Your task to perform on an android device: Open the calendar and show me this week's events? Image 0: 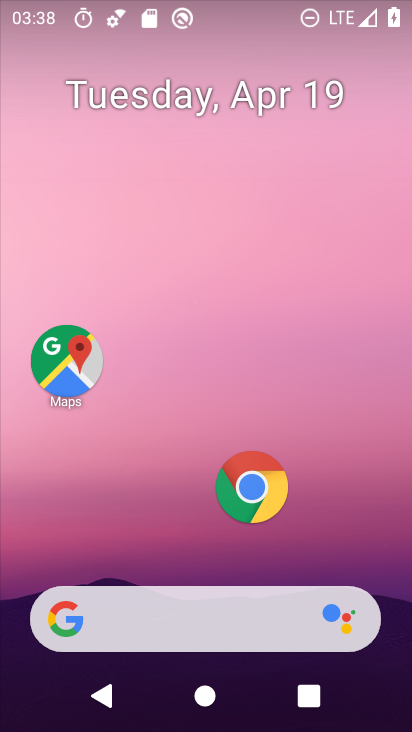
Step 0: drag from (164, 496) to (270, 10)
Your task to perform on an android device: Open the calendar and show me this week's events? Image 1: 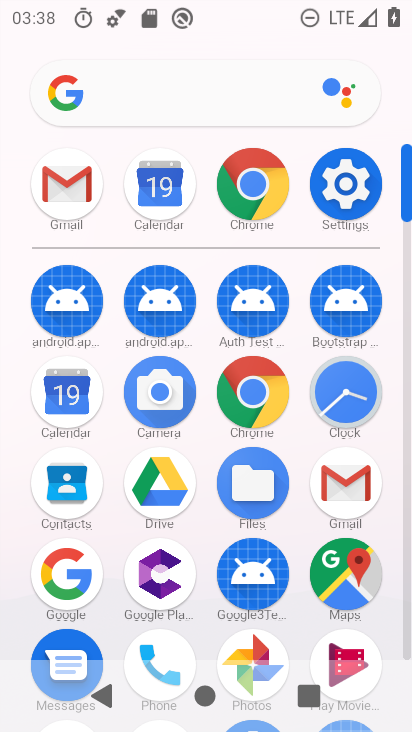
Step 1: click (74, 392)
Your task to perform on an android device: Open the calendar and show me this week's events? Image 2: 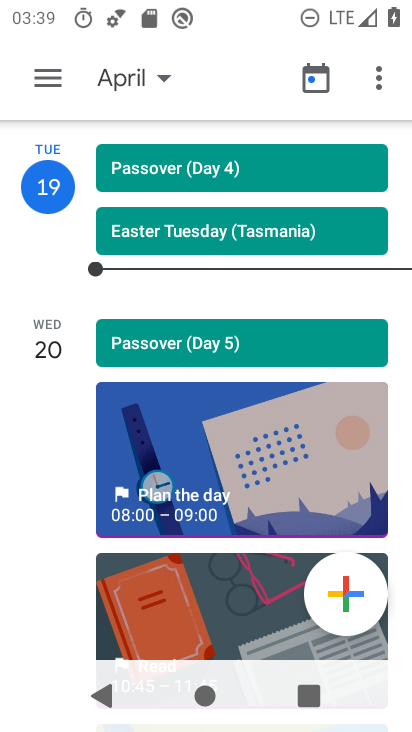
Step 2: click (167, 74)
Your task to perform on an android device: Open the calendar and show me this week's events? Image 3: 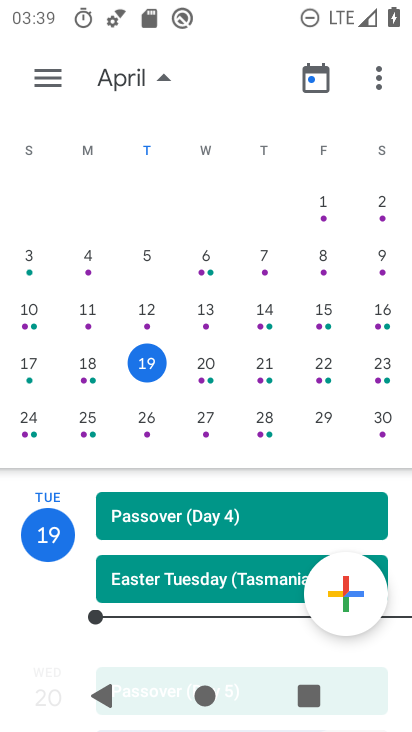
Step 3: drag from (182, 566) to (277, 183)
Your task to perform on an android device: Open the calendar and show me this week's events? Image 4: 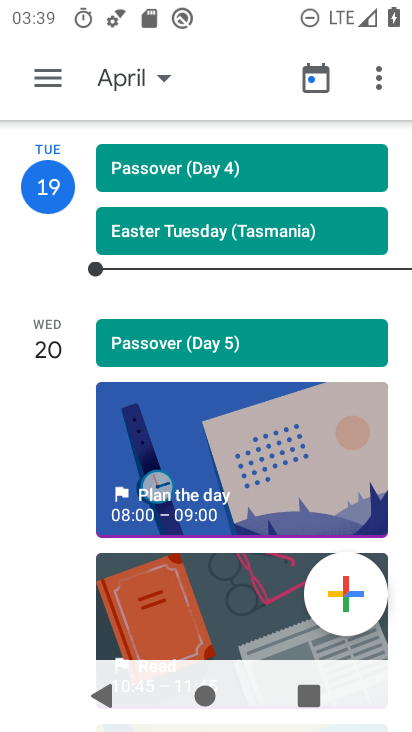
Step 4: drag from (235, 597) to (269, 371)
Your task to perform on an android device: Open the calendar and show me this week's events? Image 5: 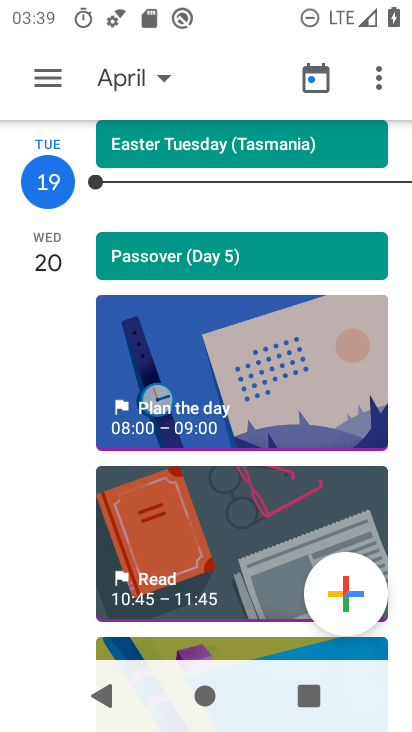
Step 5: drag from (180, 567) to (281, 110)
Your task to perform on an android device: Open the calendar and show me this week's events? Image 6: 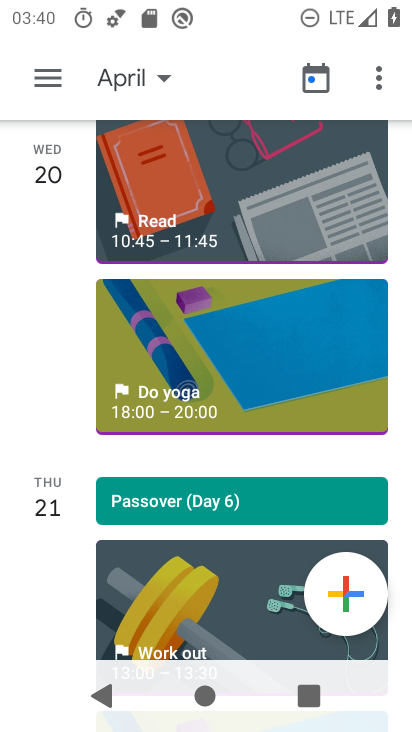
Step 6: click (205, 350)
Your task to perform on an android device: Open the calendar and show me this week's events? Image 7: 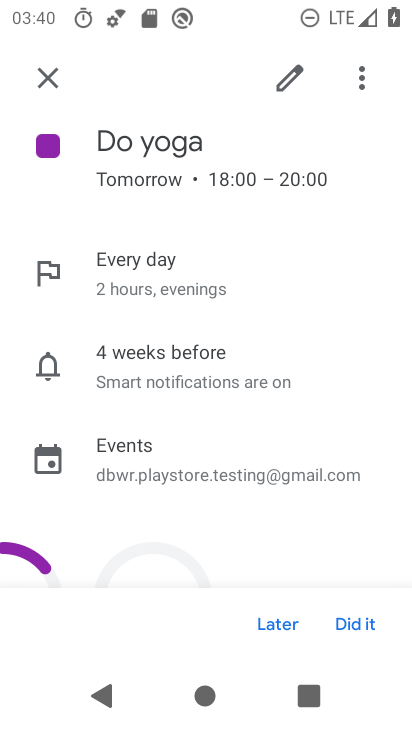
Step 7: task complete